Your task to perform on an android device: Open calendar and show me the third week of next month Image 0: 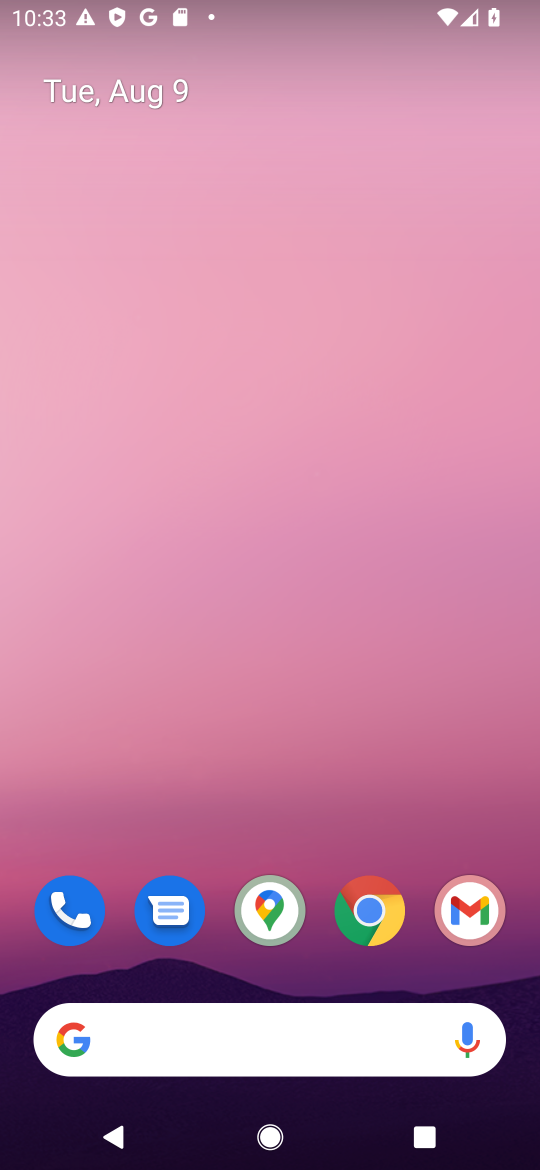
Step 0: drag from (39, 893) to (314, 42)
Your task to perform on an android device: Open calendar and show me the third week of next month Image 1: 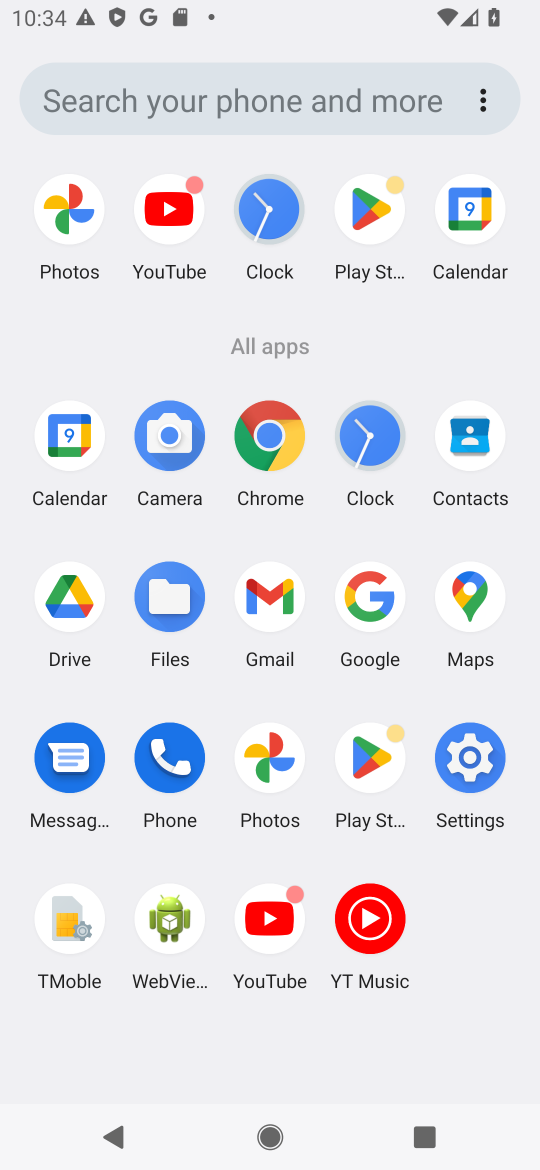
Step 1: click (57, 447)
Your task to perform on an android device: Open calendar and show me the third week of next month Image 2: 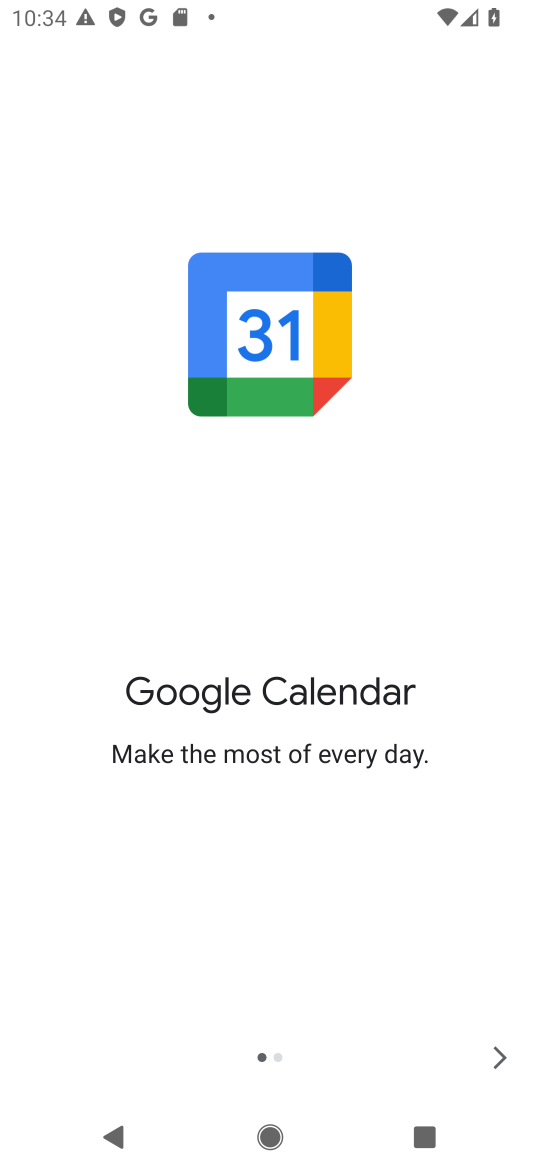
Step 2: click (495, 1055)
Your task to perform on an android device: Open calendar and show me the third week of next month Image 3: 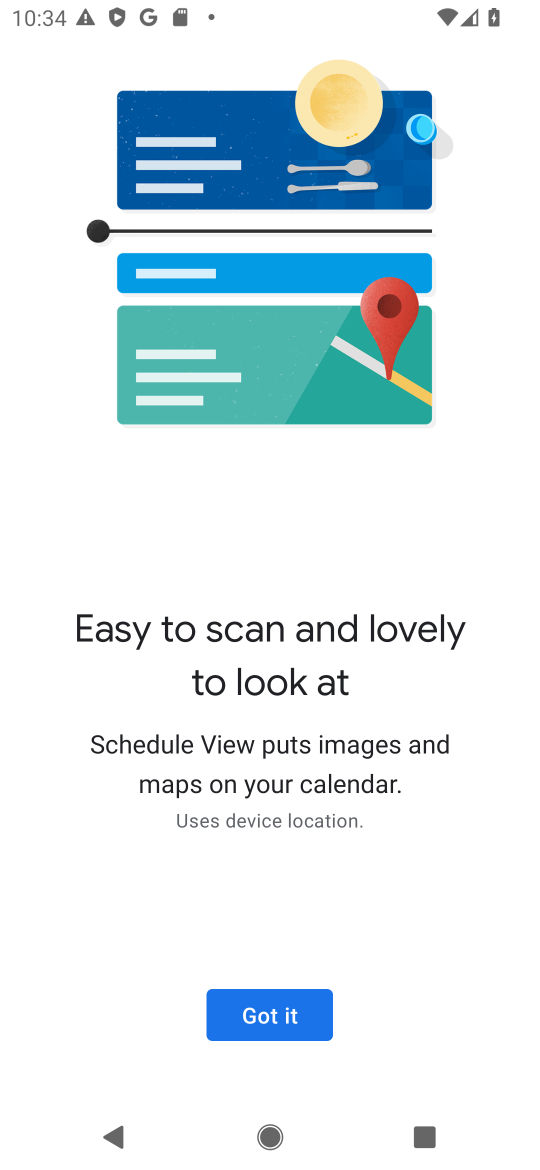
Step 3: click (291, 1017)
Your task to perform on an android device: Open calendar and show me the third week of next month Image 4: 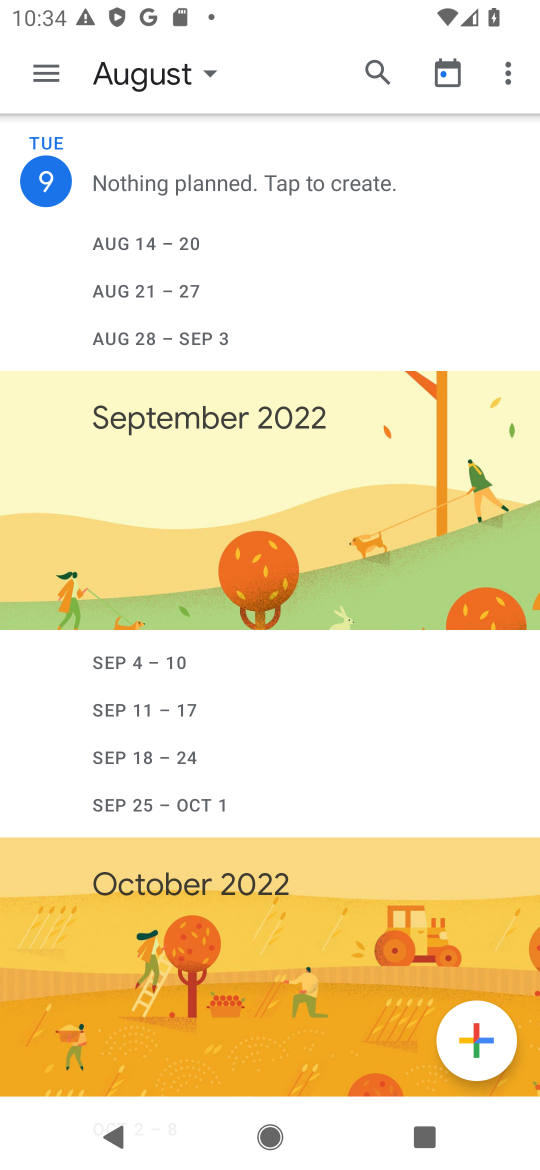
Step 4: click (143, 69)
Your task to perform on an android device: Open calendar and show me the third week of next month Image 5: 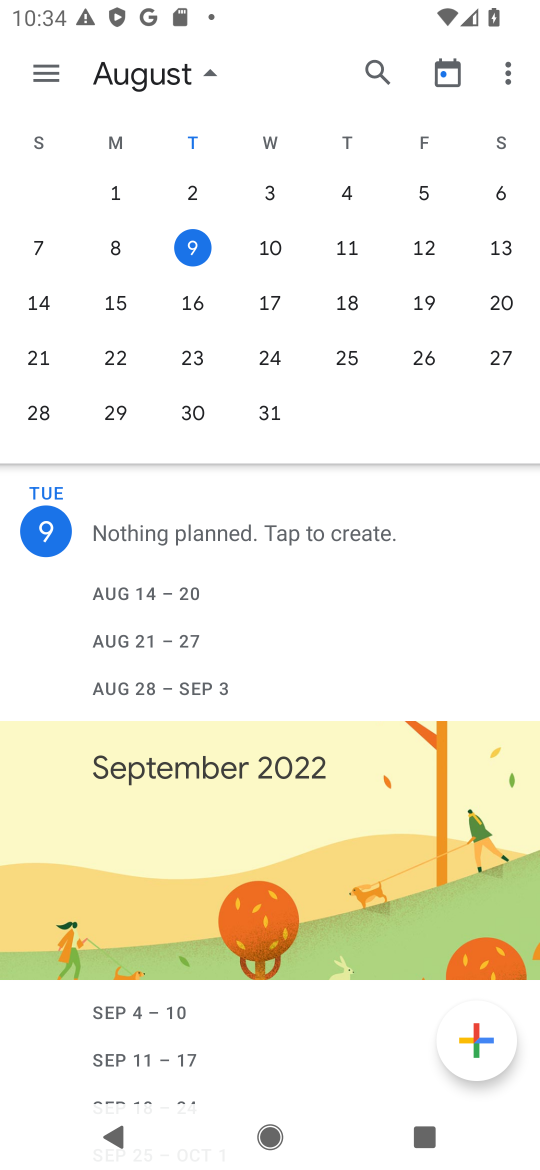
Step 5: task complete